Your task to perform on an android device: Open internet settings Image 0: 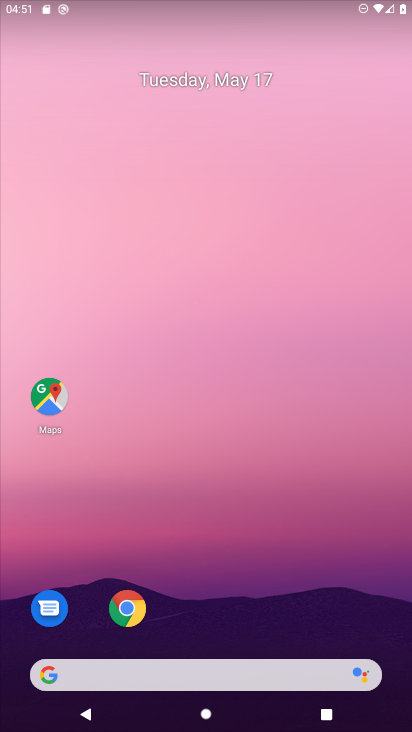
Step 0: drag from (236, 656) to (264, 330)
Your task to perform on an android device: Open internet settings Image 1: 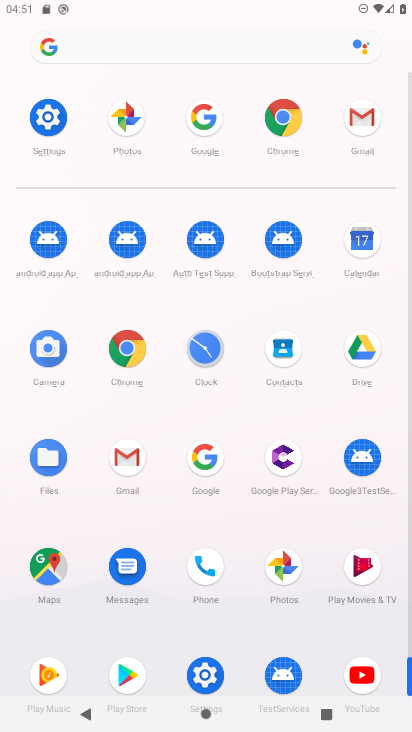
Step 1: click (50, 121)
Your task to perform on an android device: Open internet settings Image 2: 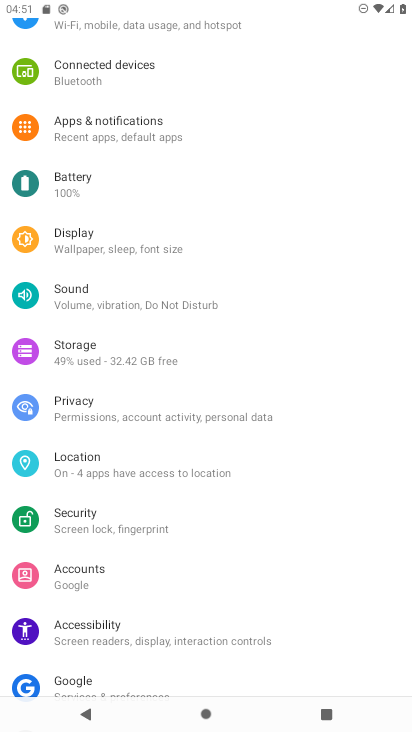
Step 2: drag from (96, 56) to (176, 446)
Your task to perform on an android device: Open internet settings Image 3: 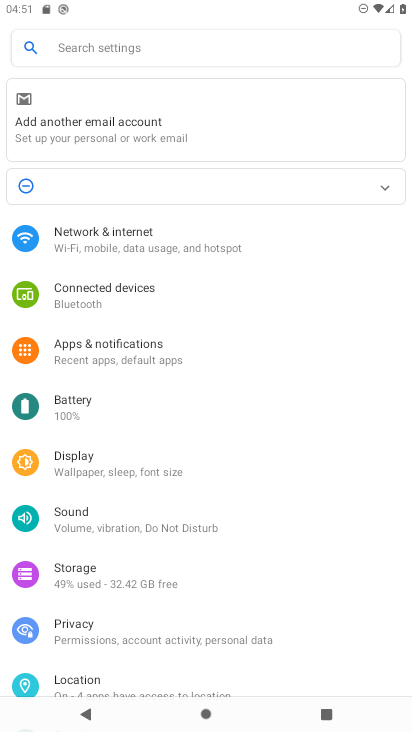
Step 3: click (97, 240)
Your task to perform on an android device: Open internet settings Image 4: 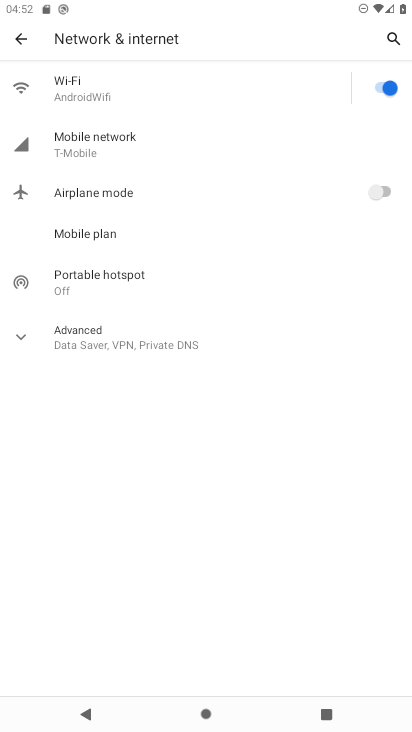
Step 4: click (128, 339)
Your task to perform on an android device: Open internet settings Image 5: 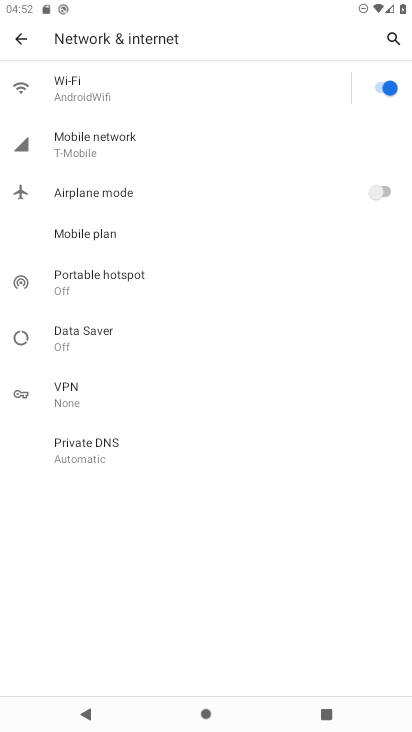
Step 5: task complete